Your task to perform on an android device: clear history in the chrome app Image 0: 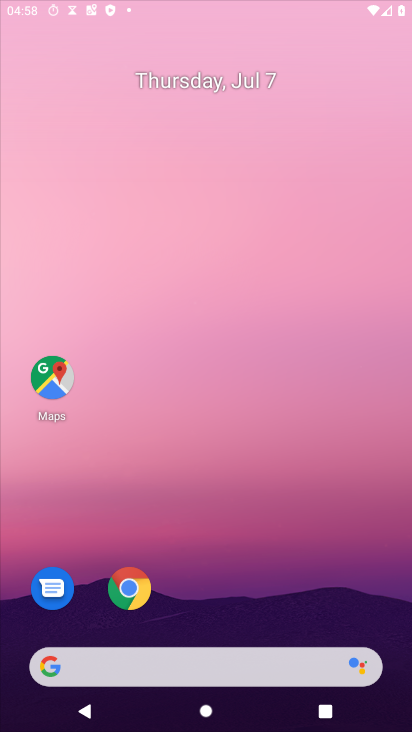
Step 0: press home button
Your task to perform on an android device: clear history in the chrome app Image 1: 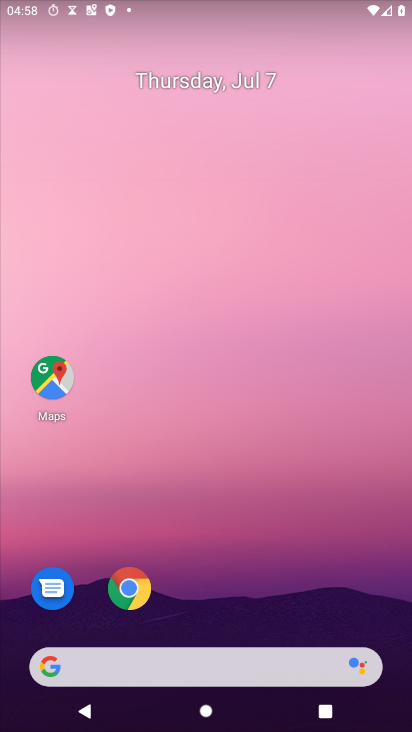
Step 1: drag from (267, 615) to (212, 245)
Your task to perform on an android device: clear history in the chrome app Image 2: 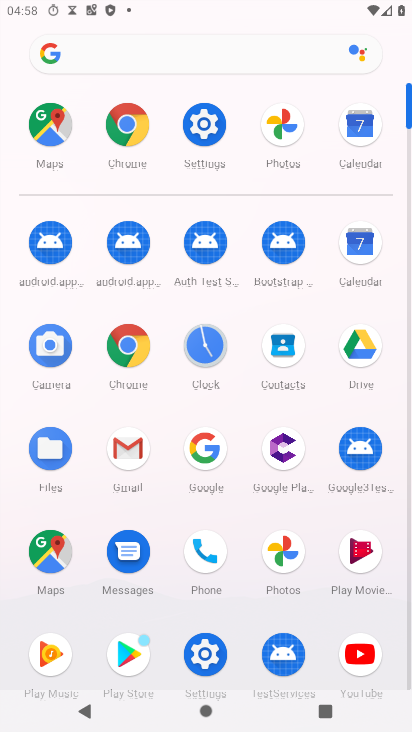
Step 2: click (126, 134)
Your task to perform on an android device: clear history in the chrome app Image 3: 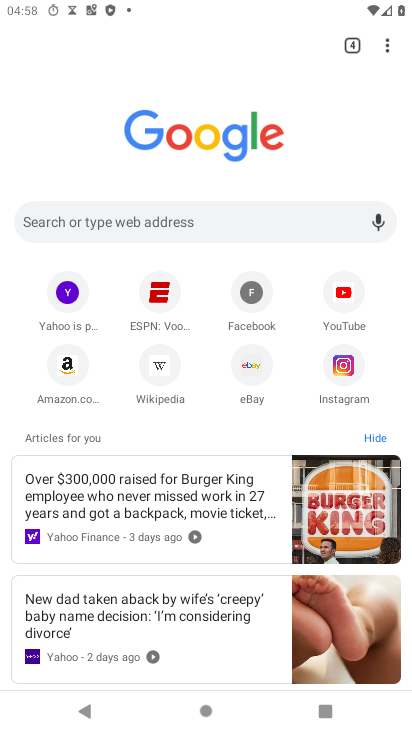
Step 3: drag from (382, 45) to (220, 255)
Your task to perform on an android device: clear history in the chrome app Image 4: 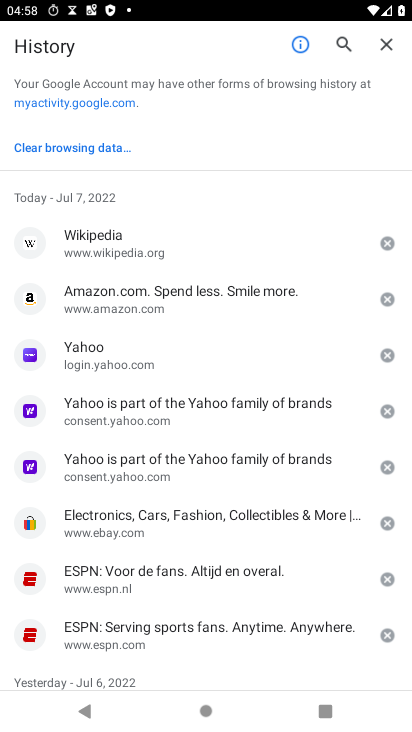
Step 4: click (52, 143)
Your task to perform on an android device: clear history in the chrome app Image 5: 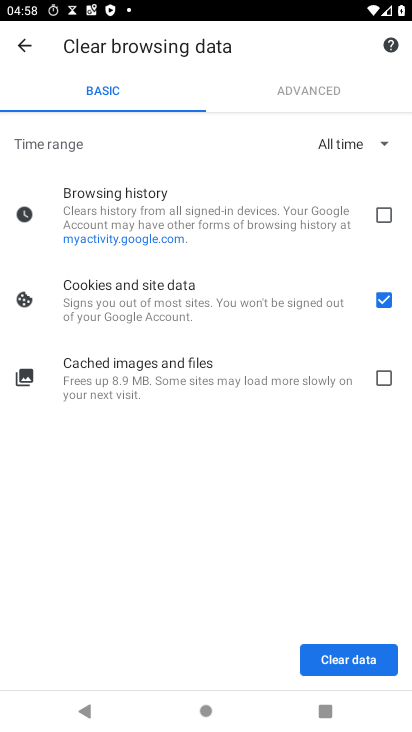
Step 5: click (342, 656)
Your task to perform on an android device: clear history in the chrome app Image 6: 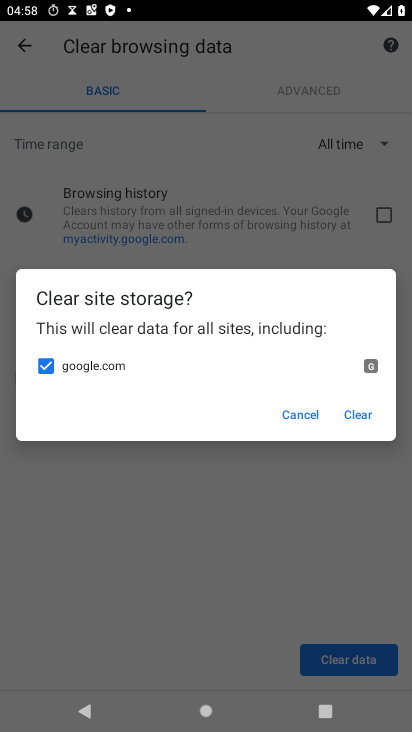
Step 6: click (294, 409)
Your task to perform on an android device: clear history in the chrome app Image 7: 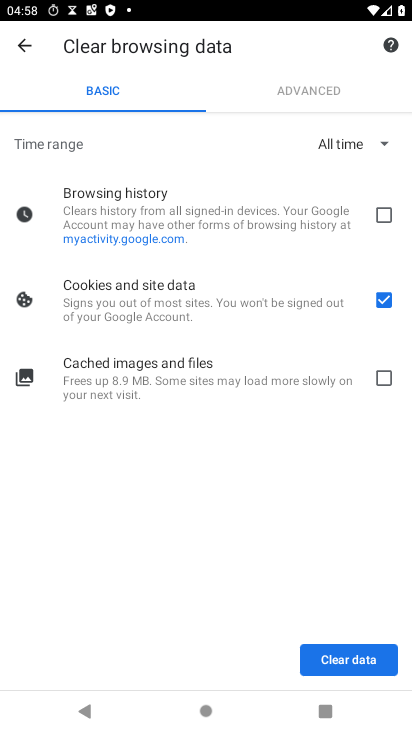
Step 7: click (390, 218)
Your task to perform on an android device: clear history in the chrome app Image 8: 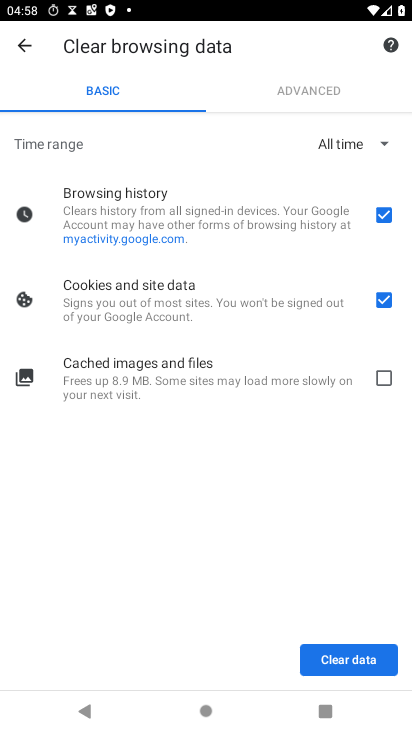
Step 8: click (386, 385)
Your task to perform on an android device: clear history in the chrome app Image 9: 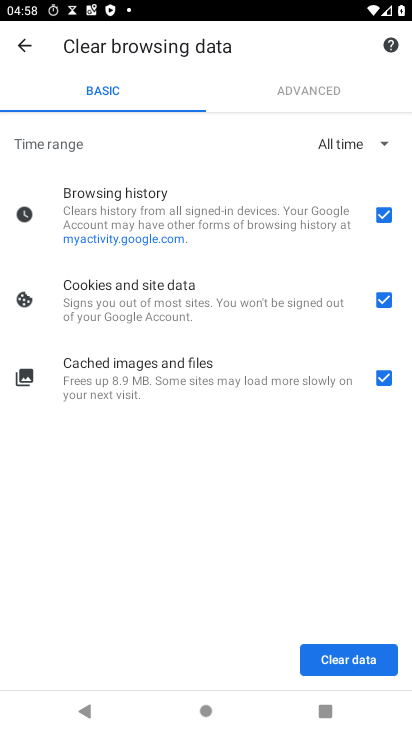
Step 9: click (341, 664)
Your task to perform on an android device: clear history in the chrome app Image 10: 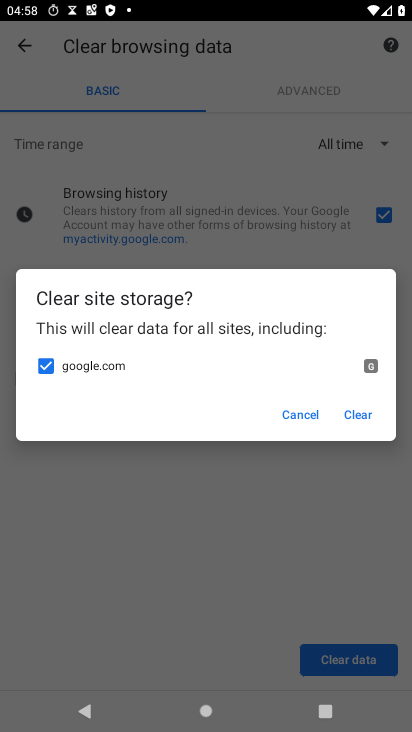
Step 10: click (355, 416)
Your task to perform on an android device: clear history in the chrome app Image 11: 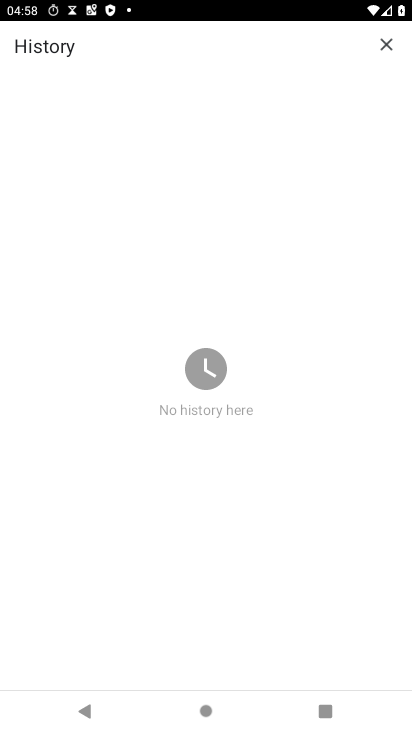
Step 11: task complete